Your task to perform on an android device: Go to calendar. Show me events next week Image 0: 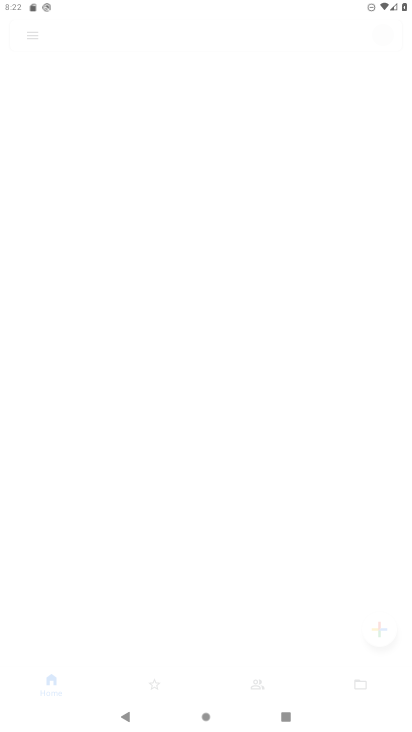
Step 0: drag from (326, 630) to (146, 56)
Your task to perform on an android device: Go to calendar. Show me events next week Image 1: 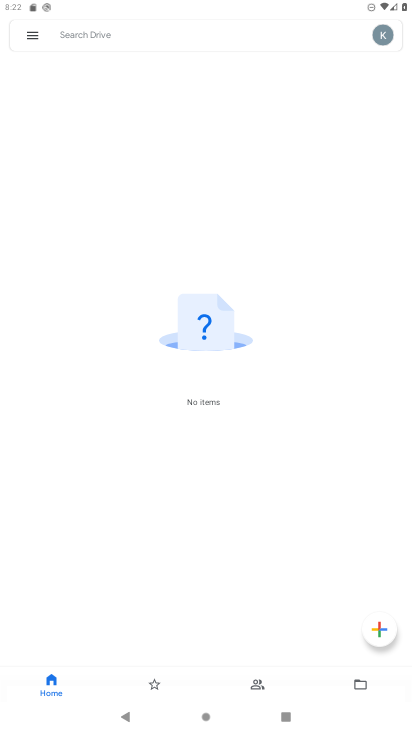
Step 1: press home button
Your task to perform on an android device: Go to calendar. Show me events next week Image 2: 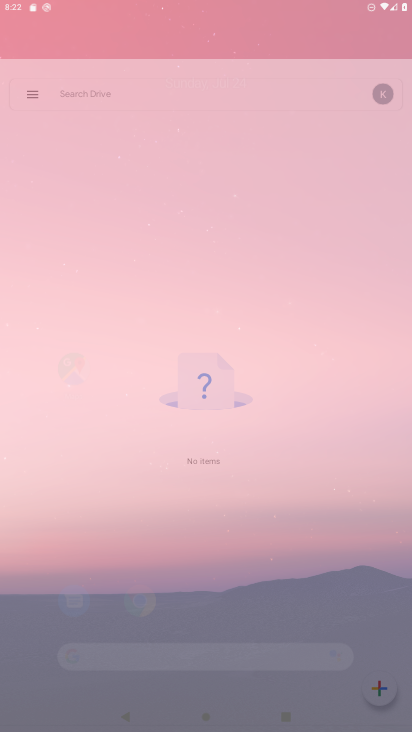
Step 2: drag from (325, 653) to (144, 39)
Your task to perform on an android device: Go to calendar. Show me events next week Image 3: 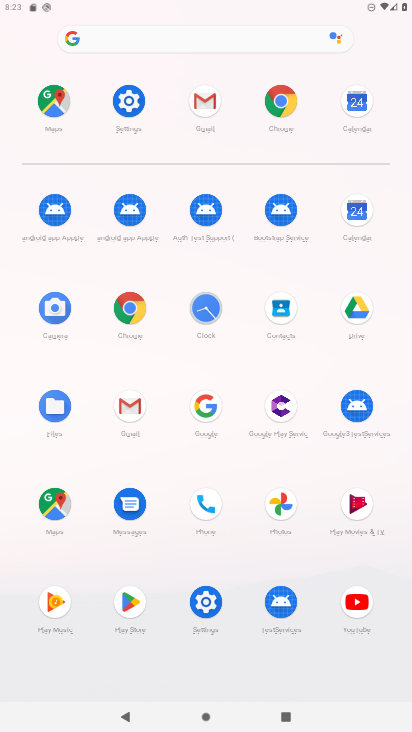
Step 3: click (357, 208)
Your task to perform on an android device: Go to calendar. Show me events next week Image 4: 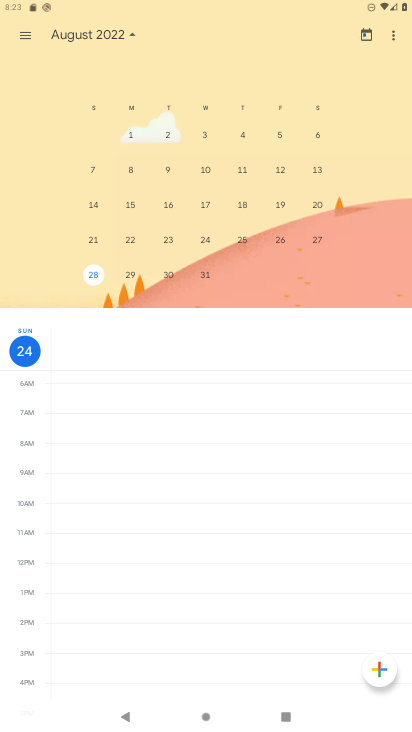
Step 4: task complete